Your task to perform on an android device: Open display settings Image 0: 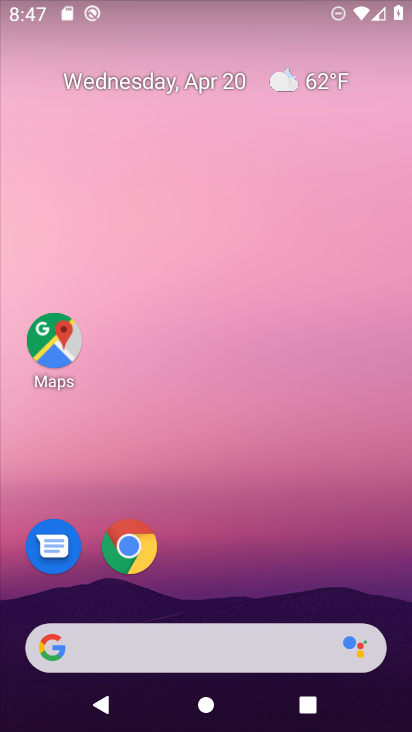
Step 0: drag from (276, 542) to (293, 99)
Your task to perform on an android device: Open display settings Image 1: 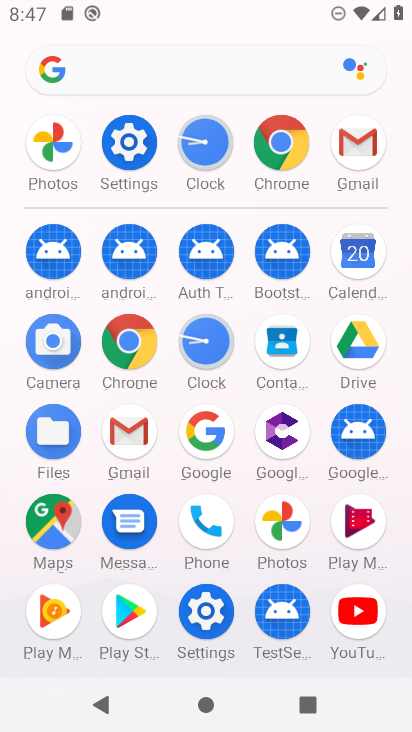
Step 1: click (127, 144)
Your task to perform on an android device: Open display settings Image 2: 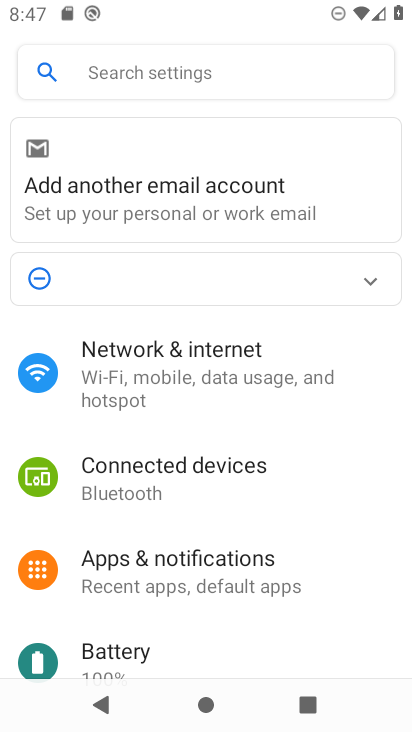
Step 2: drag from (208, 608) to (237, 92)
Your task to perform on an android device: Open display settings Image 3: 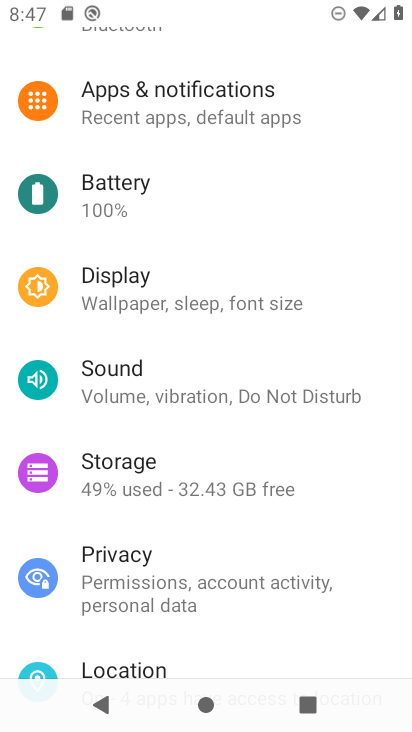
Step 3: click (205, 295)
Your task to perform on an android device: Open display settings Image 4: 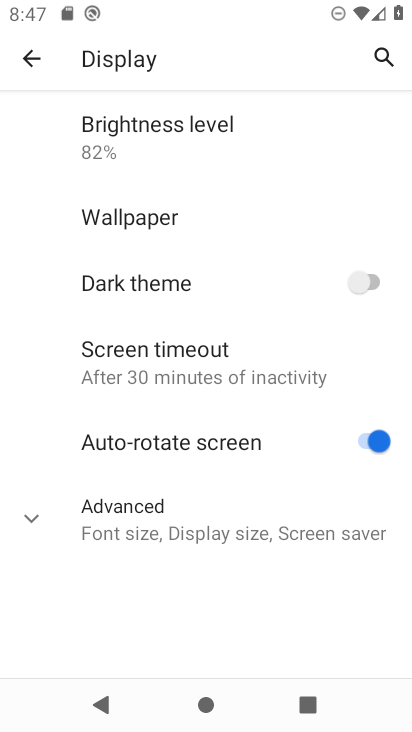
Step 4: task complete